Your task to perform on an android device: Go to Wikipedia Image 0: 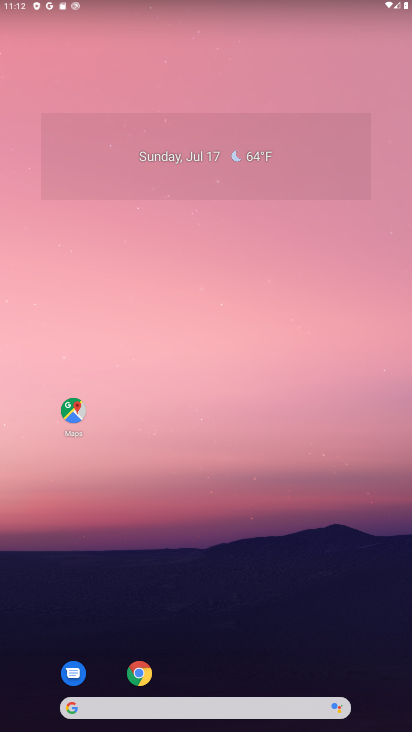
Step 0: click (139, 676)
Your task to perform on an android device: Go to Wikipedia Image 1: 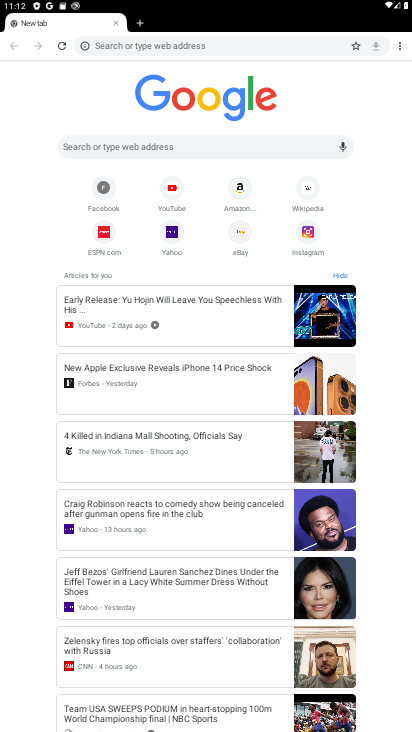
Step 1: click (311, 191)
Your task to perform on an android device: Go to Wikipedia Image 2: 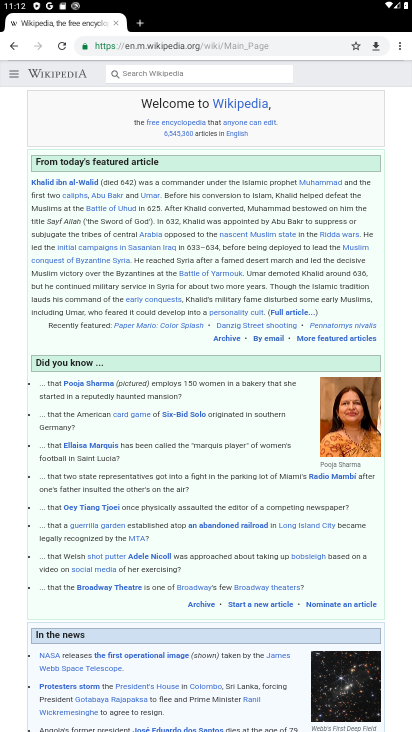
Step 2: task complete